Your task to perform on an android device: Go to notification settings Image 0: 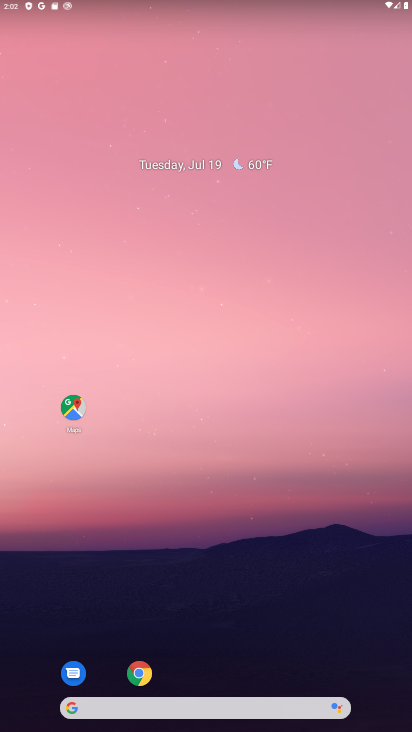
Step 0: drag from (338, 661) to (270, 7)
Your task to perform on an android device: Go to notification settings Image 1: 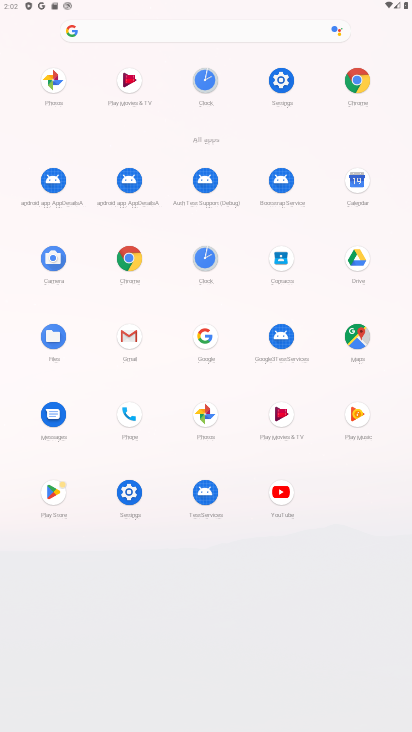
Step 1: click (288, 84)
Your task to perform on an android device: Go to notification settings Image 2: 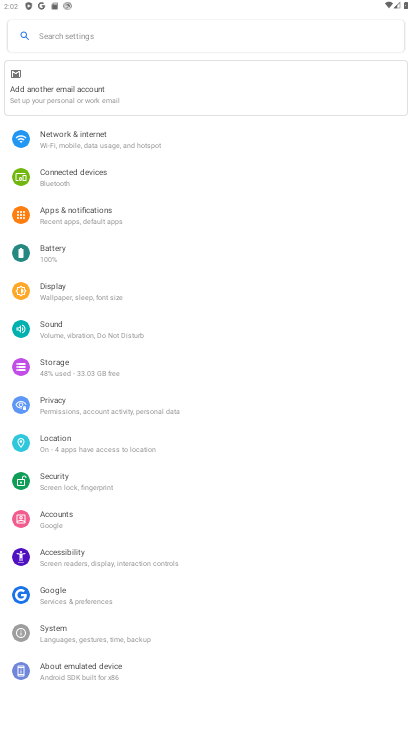
Step 2: click (191, 217)
Your task to perform on an android device: Go to notification settings Image 3: 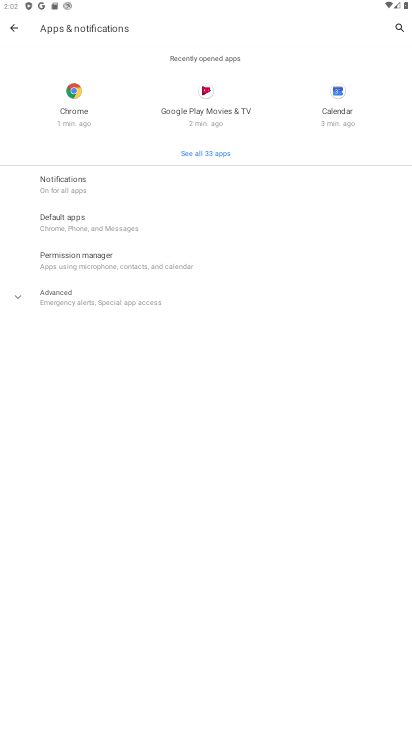
Step 3: click (222, 176)
Your task to perform on an android device: Go to notification settings Image 4: 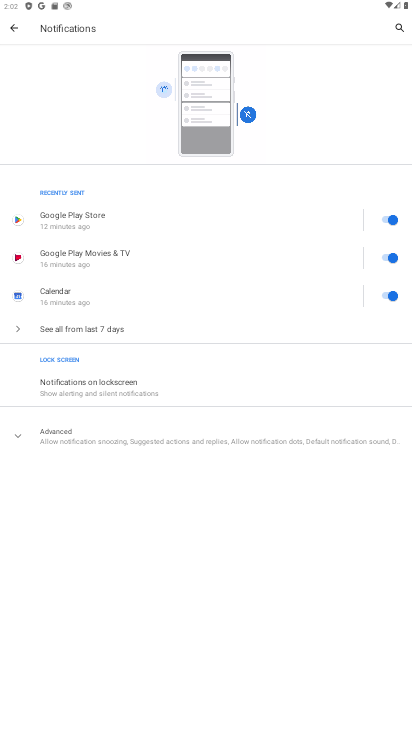
Step 4: task complete